Your task to perform on an android device: Go to Reddit.com Image 0: 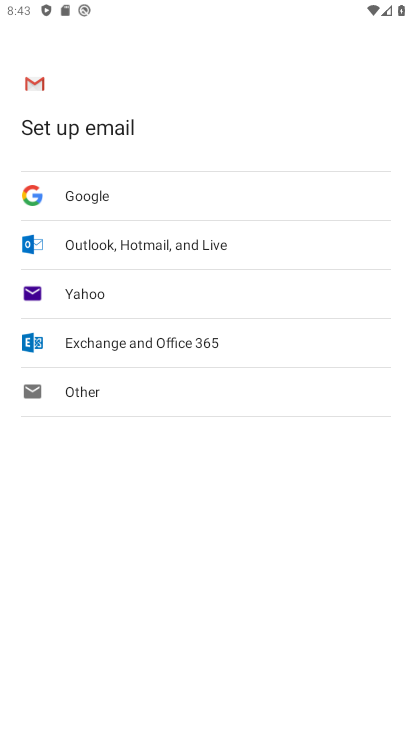
Step 0: press home button
Your task to perform on an android device: Go to Reddit.com Image 1: 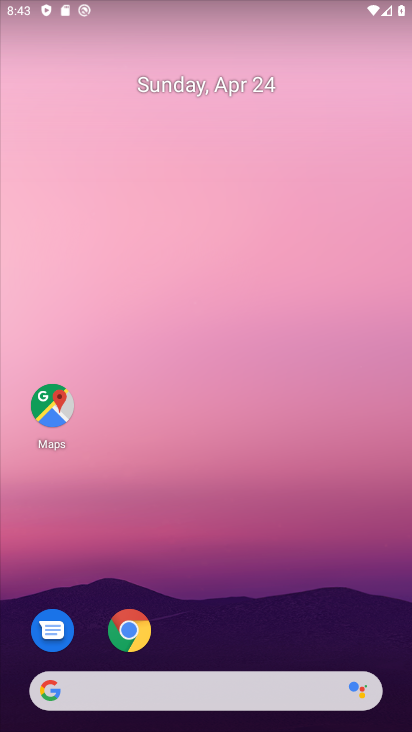
Step 1: click (126, 627)
Your task to perform on an android device: Go to Reddit.com Image 2: 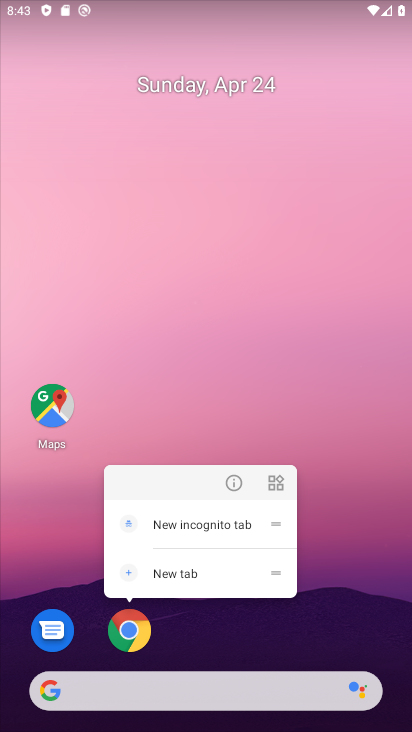
Step 2: click (224, 482)
Your task to perform on an android device: Go to Reddit.com Image 3: 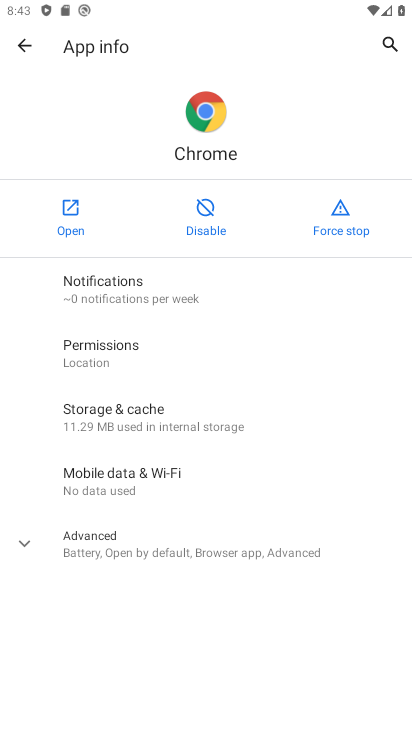
Step 3: click (76, 209)
Your task to perform on an android device: Go to Reddit.com Image 4: 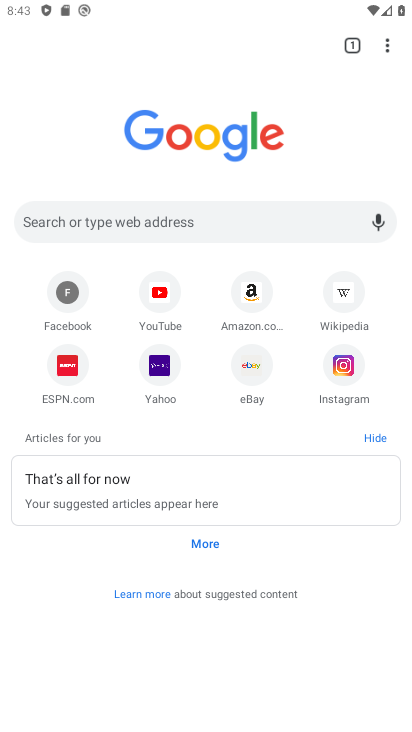
Step 4: click (93, 221)
Your task to perform on an android device: Go to Reddit.com Image 5: 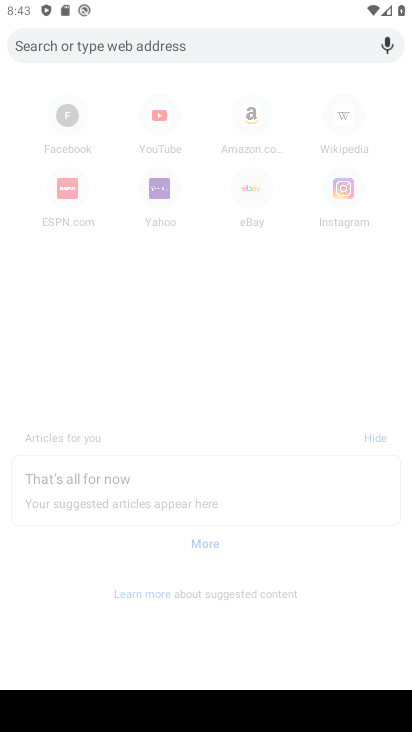
Step 5: type "Reddit.com"
Your task to perform on an android device: Go to Reddit.com Image 6: 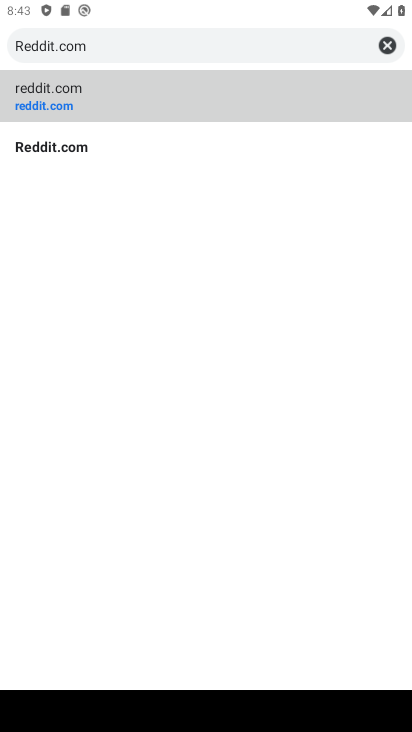
Step 6: click (115, 88)
Your task to perform on an android device: Go to Reddit.com Image 7: 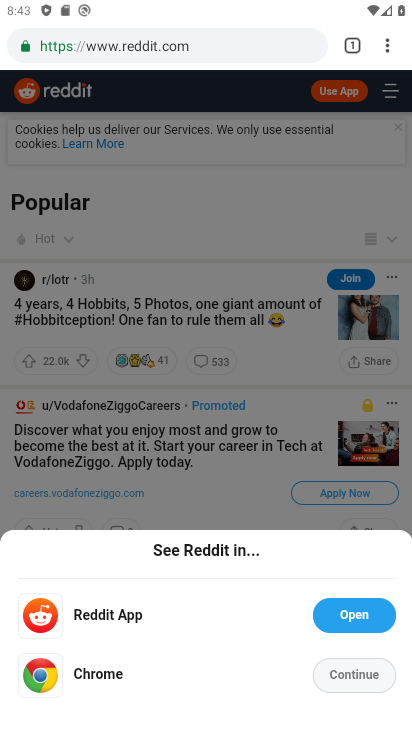
Step 7: task complete